Your task to perform on an android device: turn on the 12-hour format for clock Image 0: 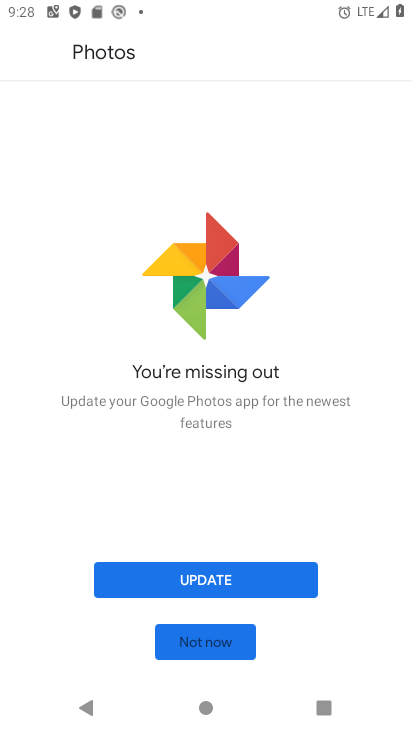
Step 0: press home button
Your task to perform on an android device: turn on the 12-hour format for clock Image 1: 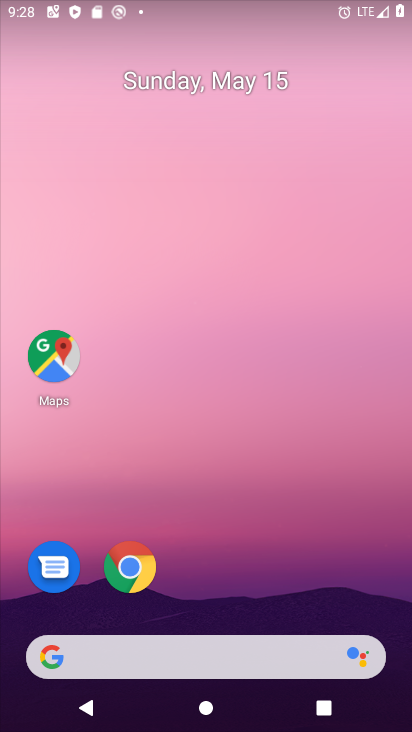
Step 1: drag from (239, 708) to (228, 178)
Your task to perform on an android device: turn on the 12-hour format for clock Image 2: 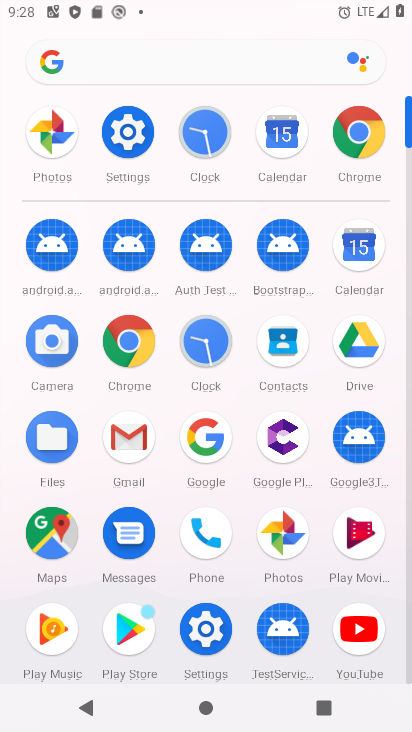
Step 2: click (215, 334)
Your task to perform on an android device: turn on the 12-hour format for clock Image 3: 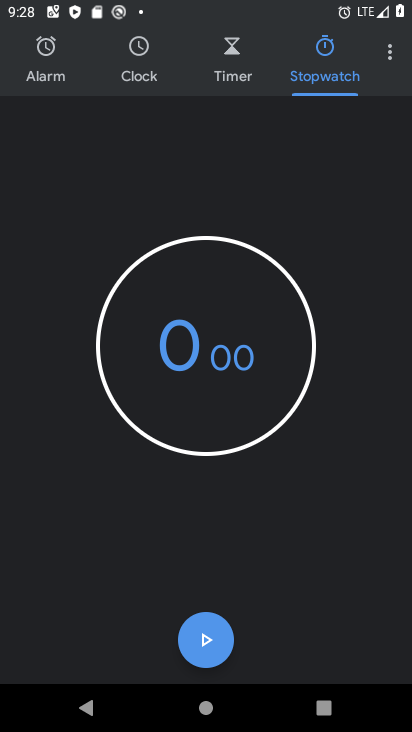
Step 3: click (386, 47)
Your task to perform on an android device: turn on the 12-hour format for clock Image 4: 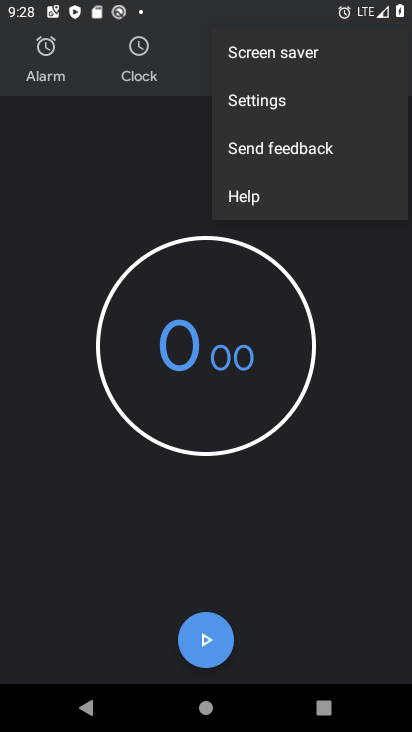
Step 4: click (303, 100)
Your task to perform on an android device: turn on the 12-hour format for clock Image 5: 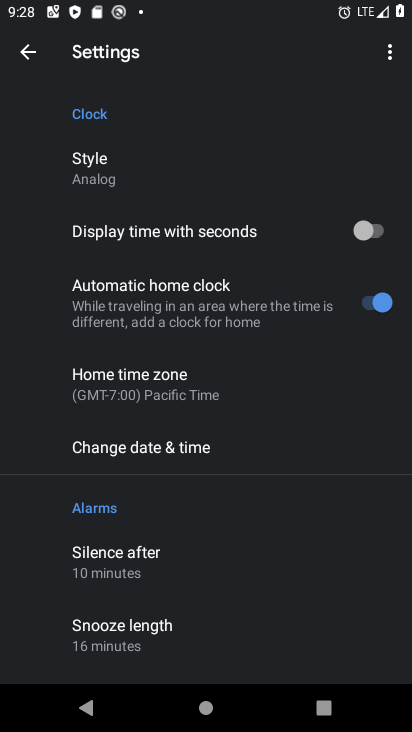
Step 5: click (237, 457)
Your task to perform on an android device: turn on the 12-hour format for clock Image 6: 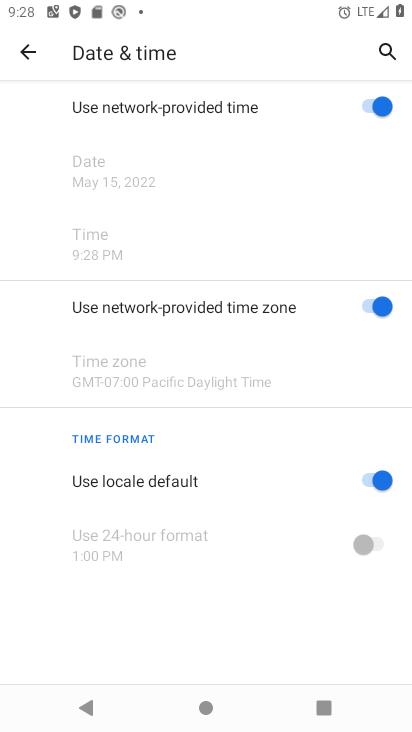
Step 6: task complete